Your task to perform on an android device: Open display settings Image 0: 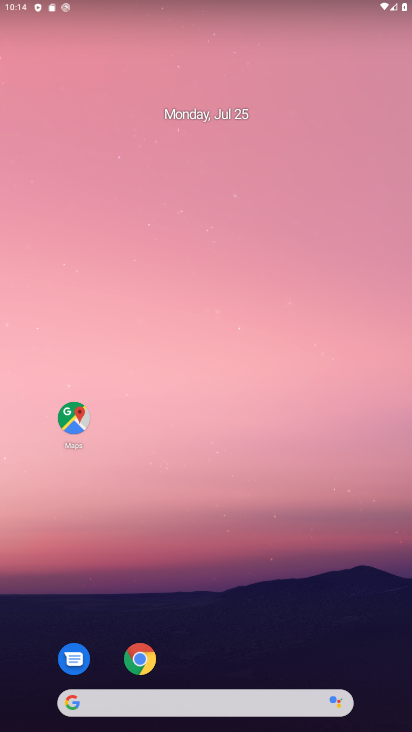
Step 0: drag from (209, 678) to (185, 106)
Your task to perform on an android device: Open display settings Image 1: 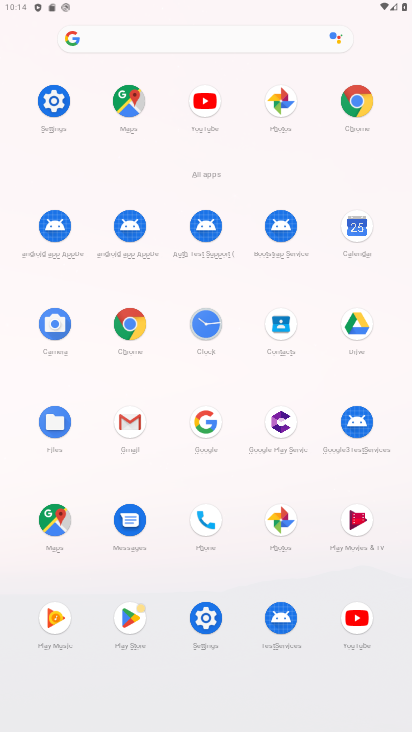
Step 1: click (208, 631)
Your task to perform on an android device: Open display settings Image 2: 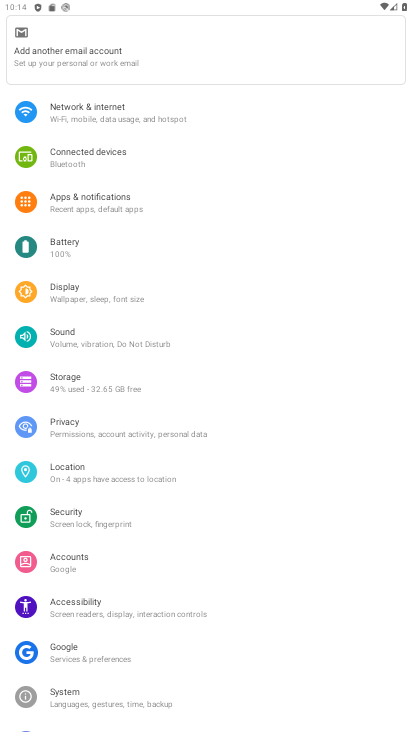
Step 2: click (77, 286)
Your task to perform on an android device: Open display settings Image 3: 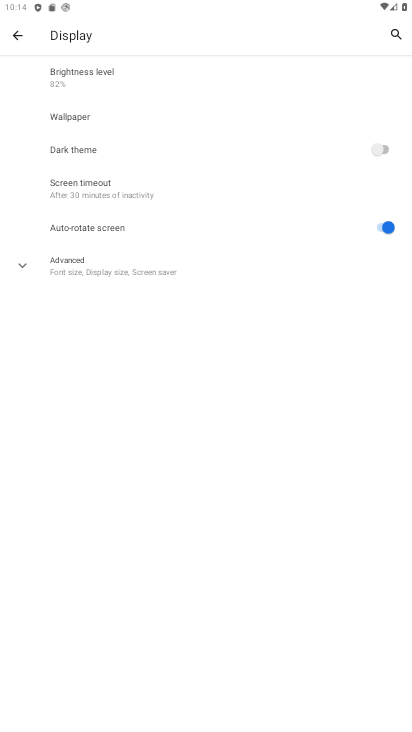
Step 3: click (82, 267)
Your task to perform on an android device: Open display settings Image 4: 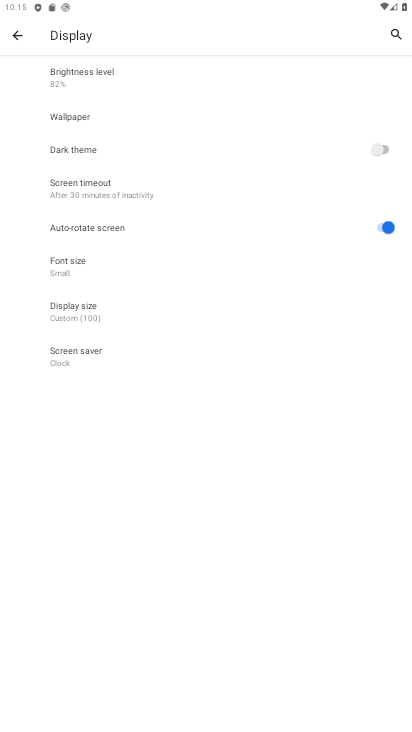
Step 4: task complete